Your task to perform on an android device: Open location settings Image 0: 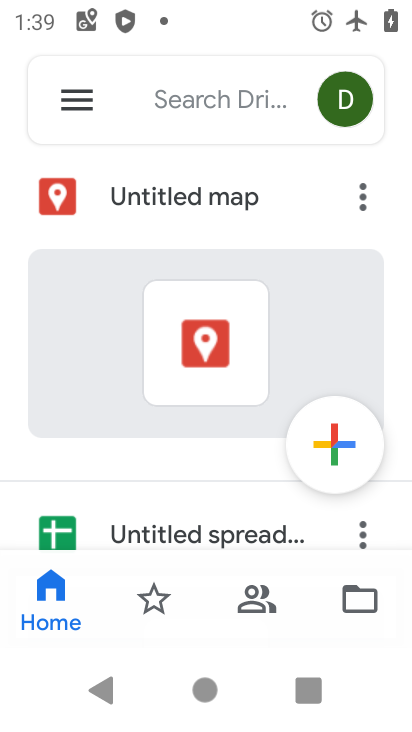
Step 0: press home button
Your task to perform on an android device: Open location settings Image 1: 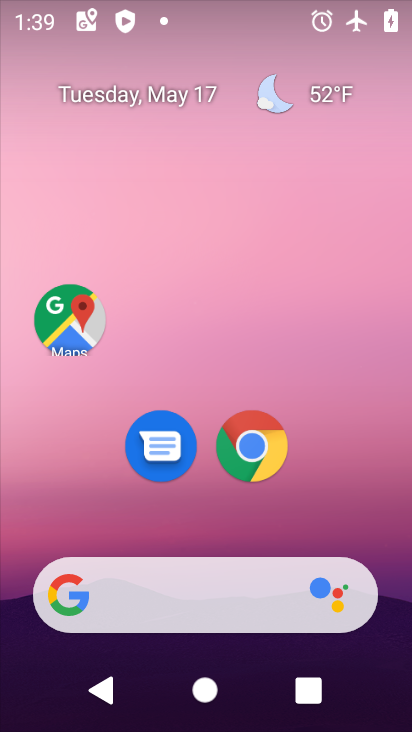
Step 1: drag from (208, 529) to (212, 161)
Your task to perform on an android device: Open location settings Image 2: 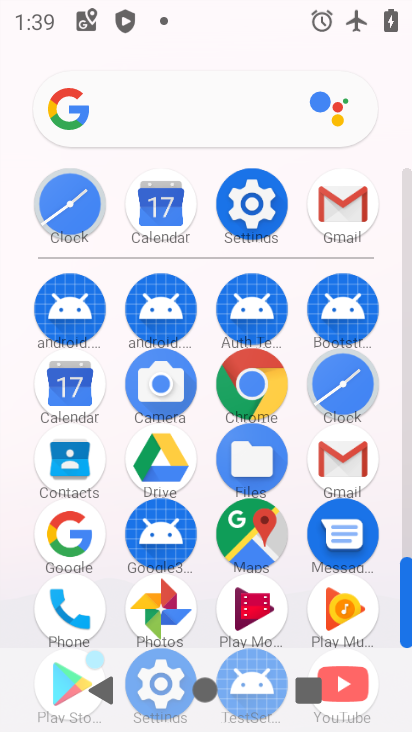
Step 2: click (251, 198)
Your task to perform on an android device: Open location settings Image 3: 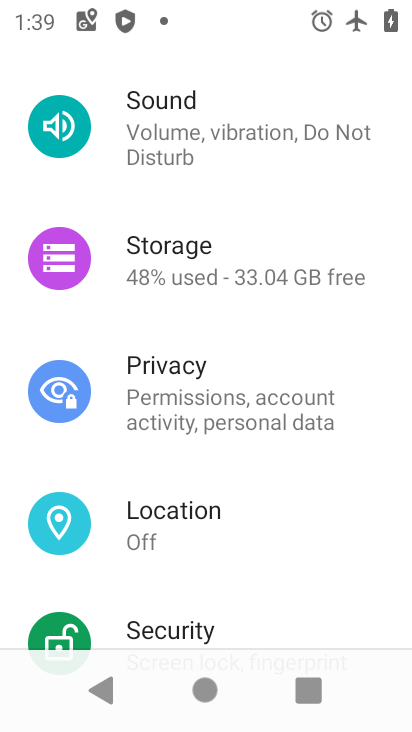
Step 3: click (190, 538)
Your task to perform on an android device: Open location settings Image 4: 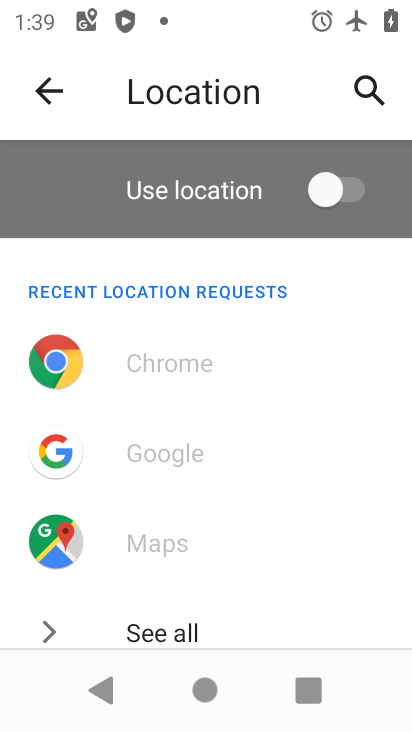
Step 4: task complete